Your task to perform on an android device: toggle javascript in the chrome app Image 0: 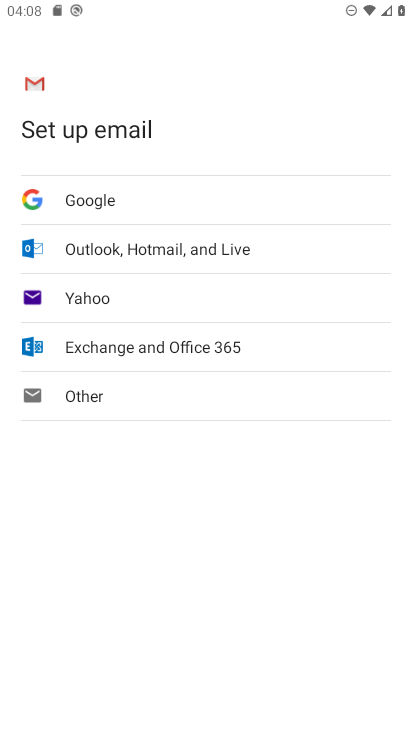
Step 0: press home button
Your task to perform on an android device: toggle javascript in the chrome app Image 1: 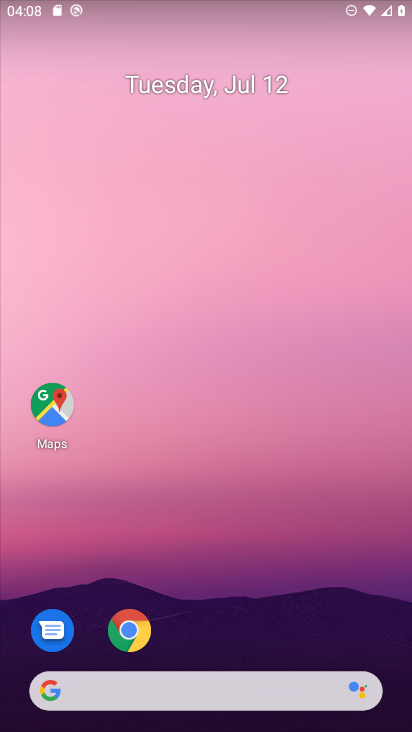
Step 1: click (130, 629)
Your task to perform on an android device: toggle javascript in the chrome app Image 2: 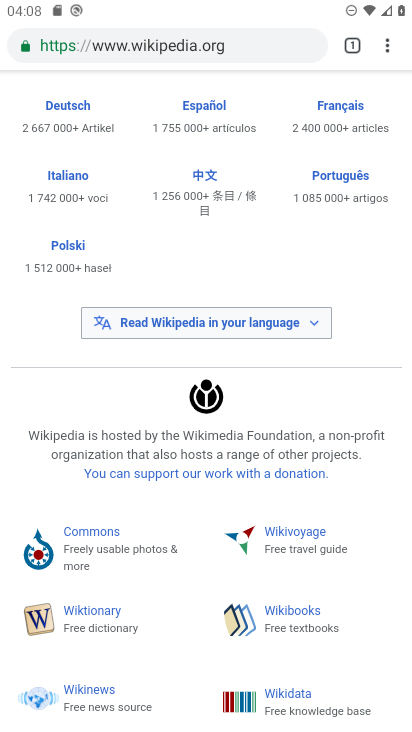
Step 2: click (386, 54)
Your task to perform on an android device: toggle javascript in the chrome app Image 3: 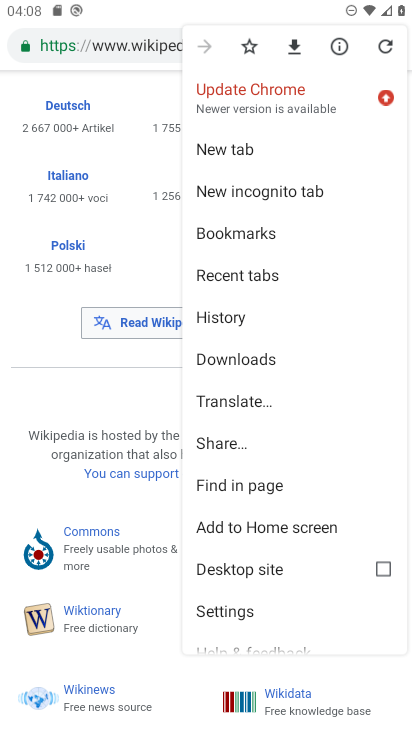
Step 3: click (235, 615)
Your task to perform on an android device: toggle javascript in the chrome app Image 4: 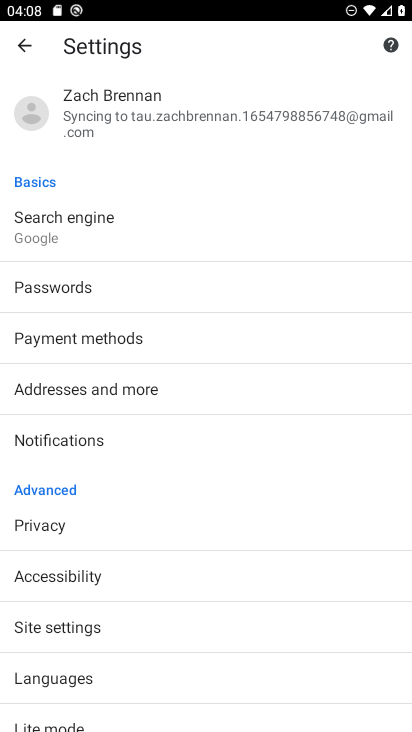
Step 4: click (53, 620)
Your task to perform on an android device: toggle javascript in the chrome app Image 5: 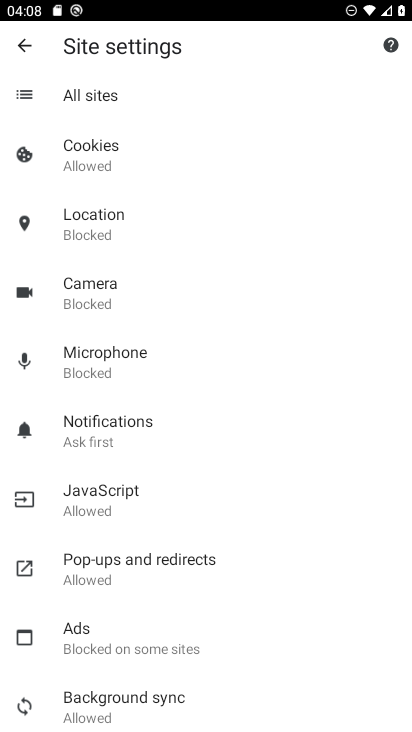
Step 5: click (94, 495)
Your task to perform on an android device: toggle javascript in the chrome app Image 6: 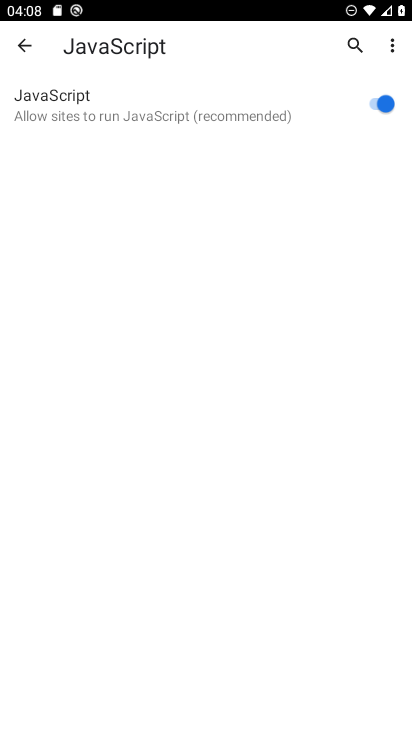
Step 6: click (371, 103)
Your task to perform on an android device: toggle javascript in the chrome app Image 7: 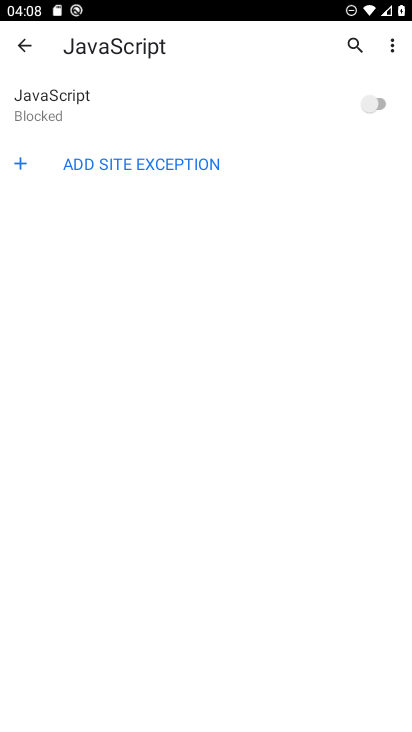
Step 7: task complete